Your task to perform on an android device: Set the phone to "Do not disturb". Image 0: 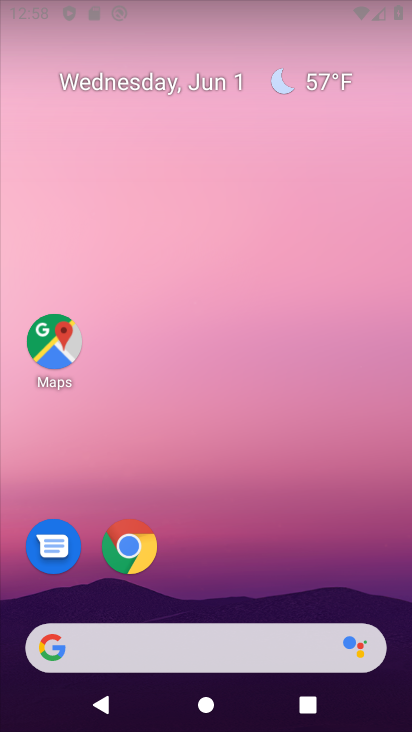
Step 0: drag from (220, 610) to (169, 36)
Your task to perform on an android device: Set the phone to "Do not disturb". Image 1: 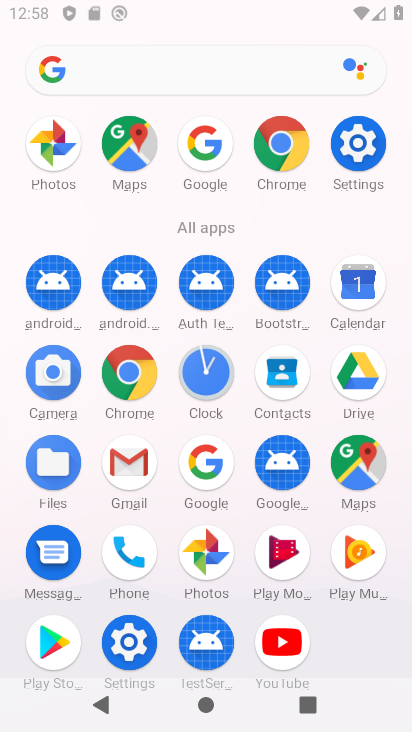
Step 1: drag from (235, 2) to (155, 700)
Your task to perform on an android device: Set the phone to "Do not disturb". Image 2: 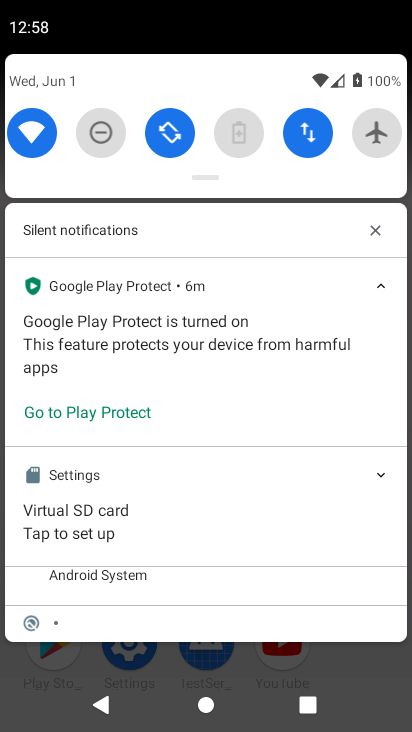
Step 2: click (94, 140)
Your task to perform on an android device: Set the phone to "Do not disturb". Image 3: 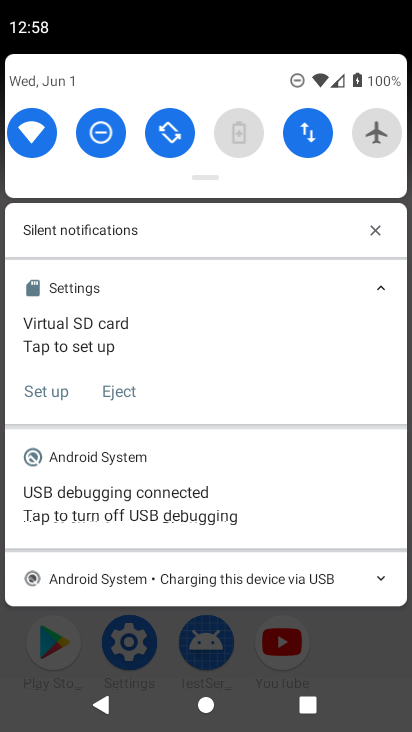
Step 3: task complete